Your task to perform on an android device: see sites visited before in the chrome app Image 0: 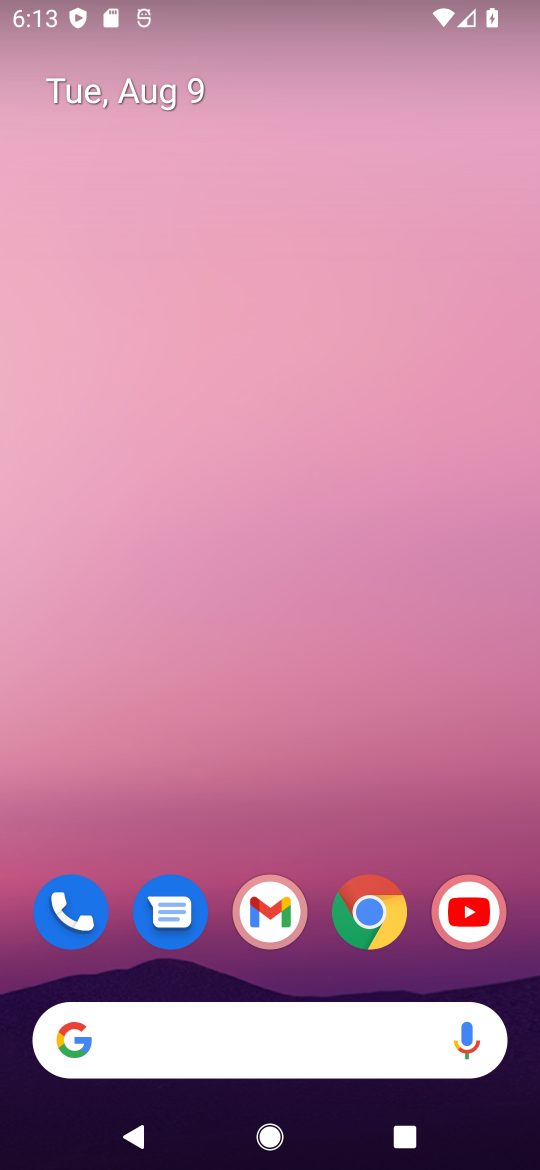
Step 0: press home button
Your task to perform on an android device: see sites visited before in the chrome app Image 1: 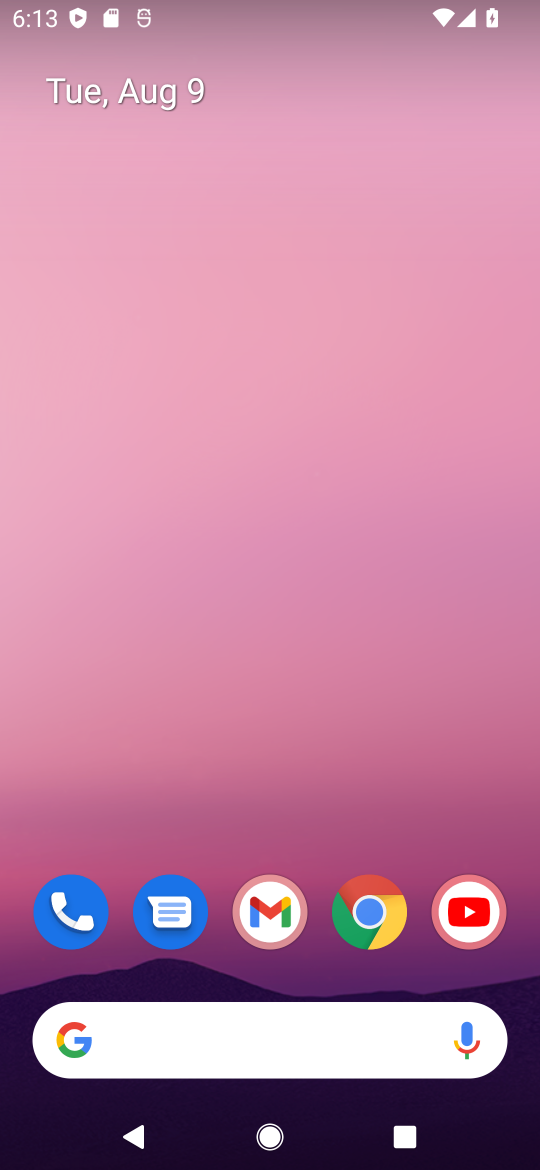
Step 1: click (376, 914)
Your task to perform on an android device: see sites visited before in the chrome app Image 2: 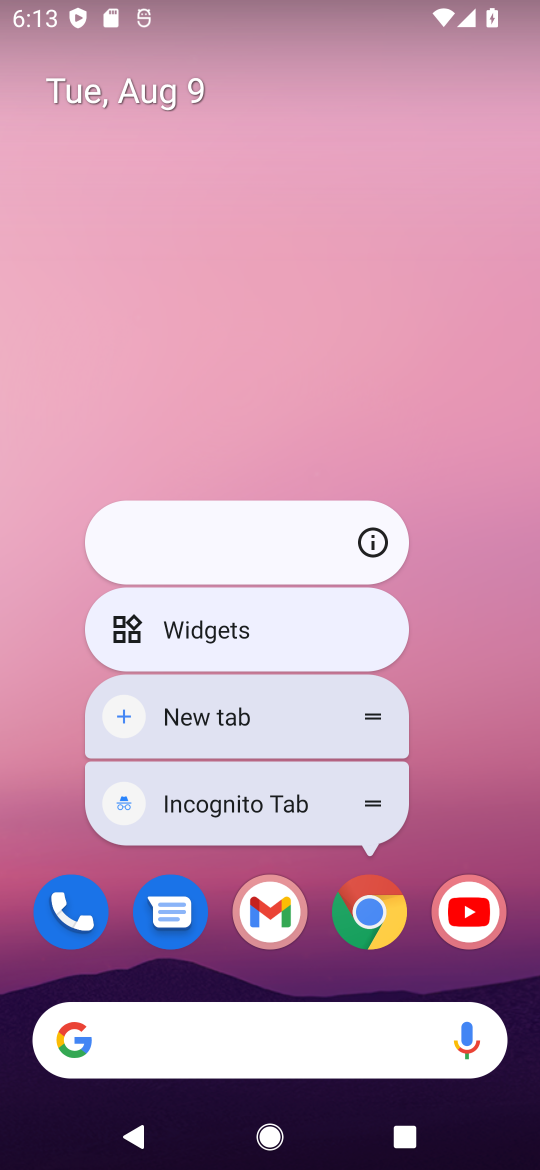
Step 2: click (379, 925)
Your task to perform on an android device: see sites visited before in the chrome app Image 3: 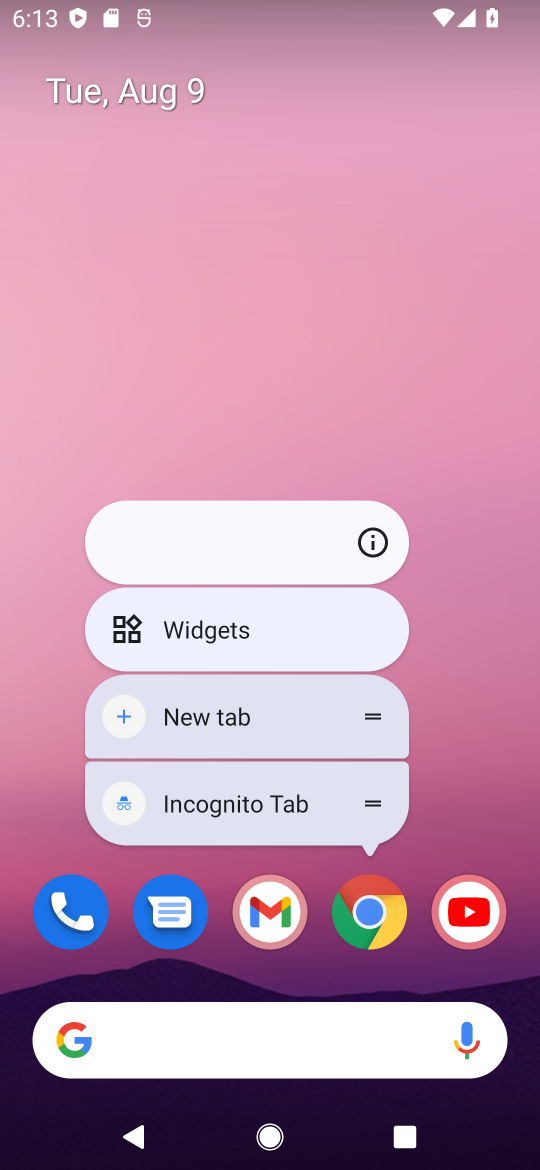
Step 3: click (379, 925)
Your task to perform on an android device: see sites visited before in the chrome app Image 4: 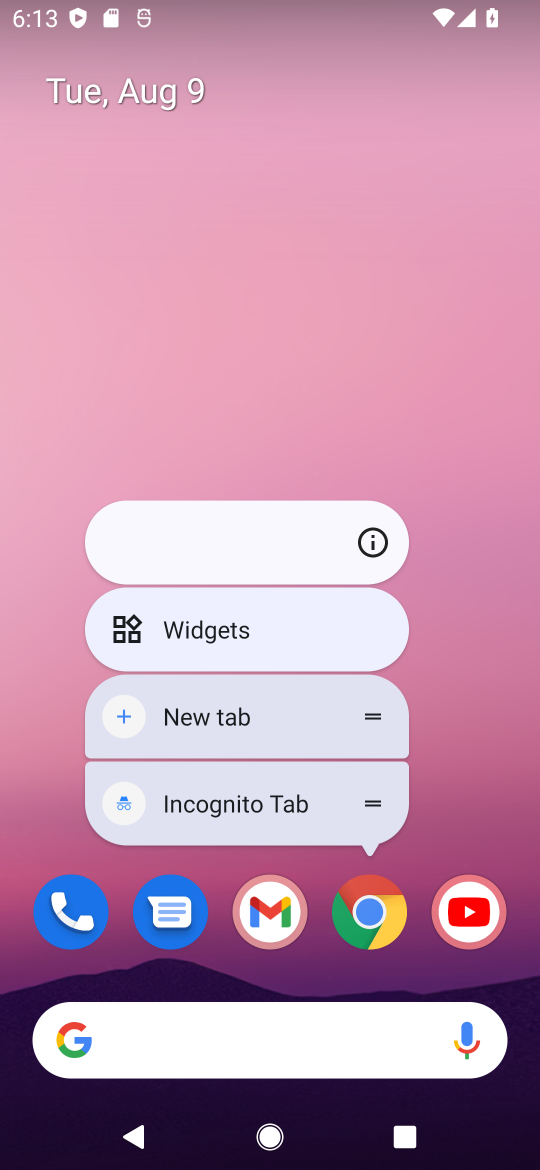
Step 4: click (379, 925)
Your task to perform on an android device: see sites visited before in the chrome app Image 5: 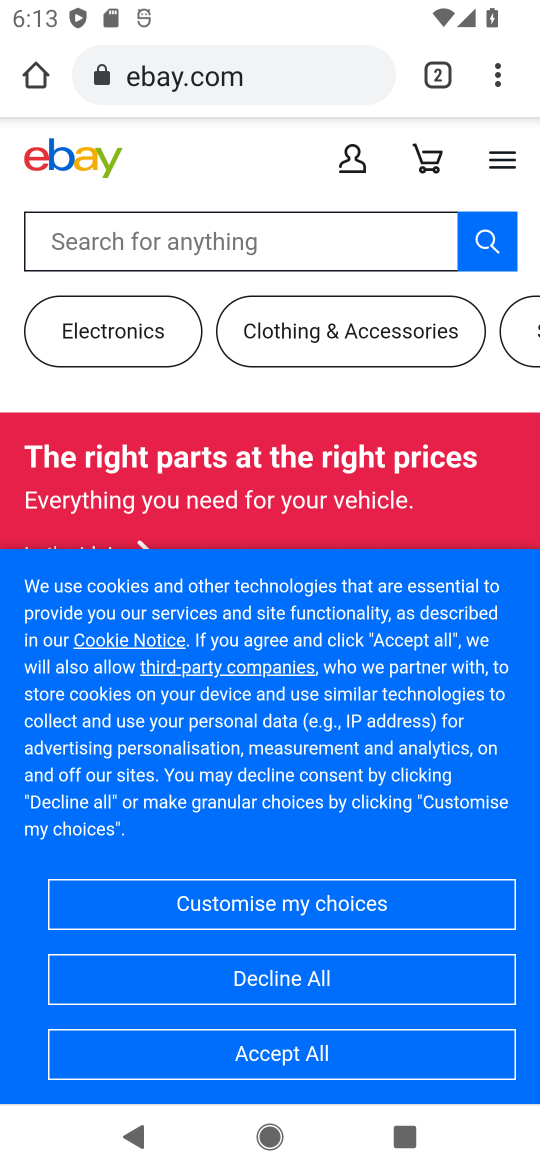
Step 5: click (496, 67)
Your task to perform on an android device: see sites visited before in the chrome app Image 6: 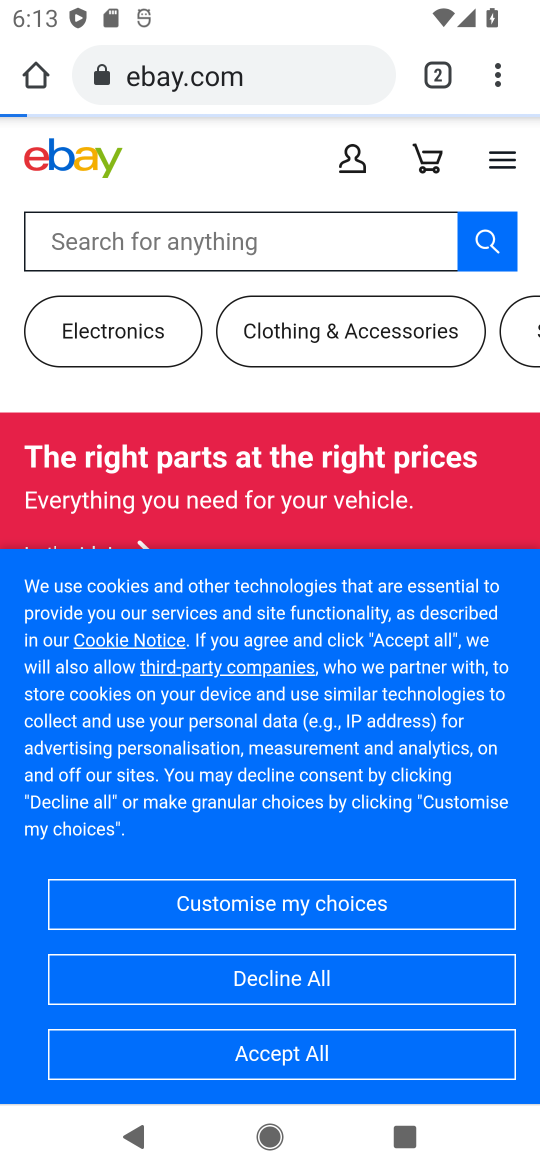
Step 6: task complete